Your task to perform on an android device: Open Maps and search for coffee Image 0: 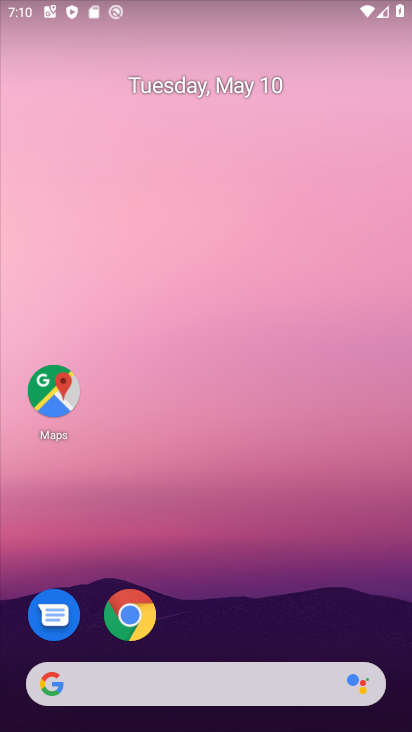
Step 0: click (49, 395)
Your task to perform on an android device: Open Maps and search for coffee Image 1: 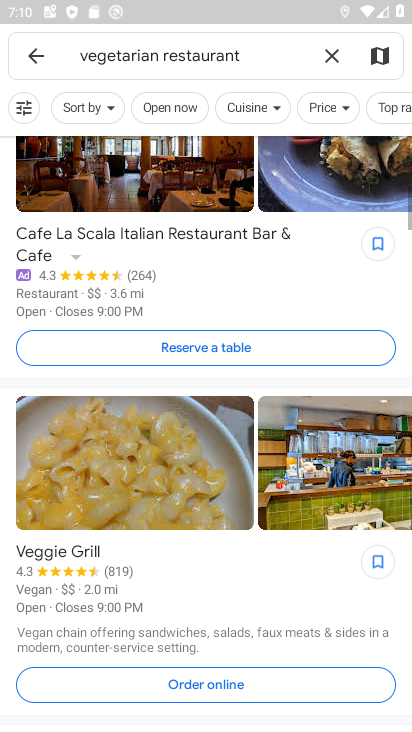
Step 1: click (316, 84)
Your task to perform on an android device: Open Maps and search for coffee Image 2: 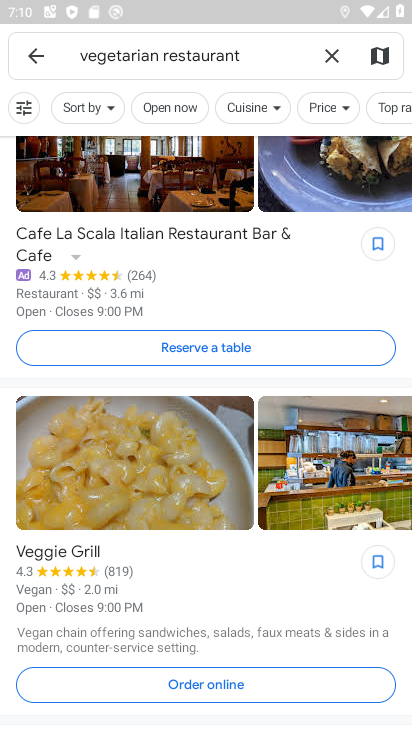
Step 2: click (332, 59)
Your task to perform on an android device: Open Maps and search for coffee Image 3: 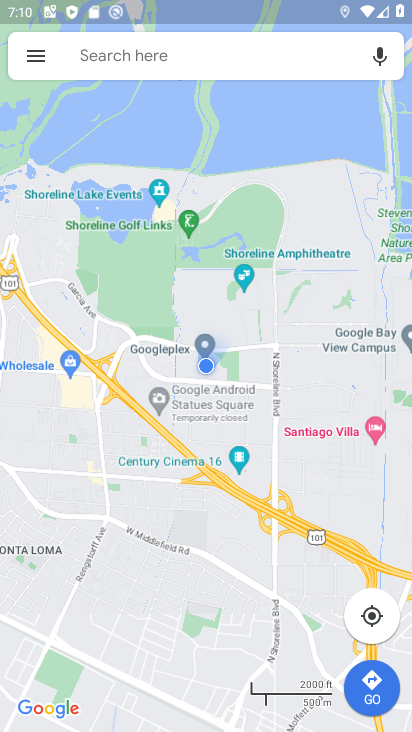
Step 3: click (190, 50)
Your task to perform on an android device: Open Maps and search for coffee Image 4: 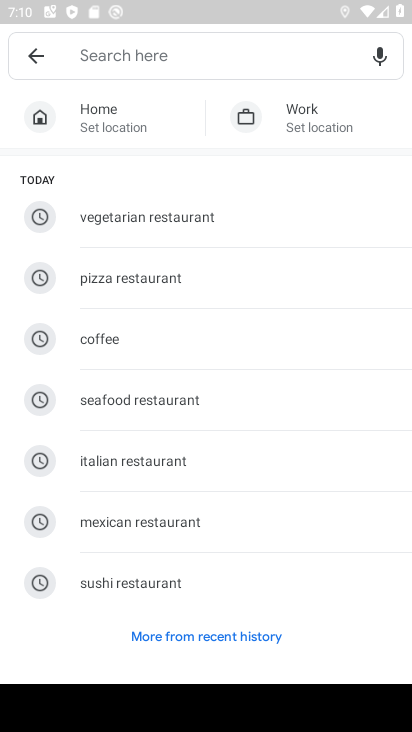
Step 4: click (104, 334)
Your task to perform on an android device: Open Maps and search for coffee Image 5: 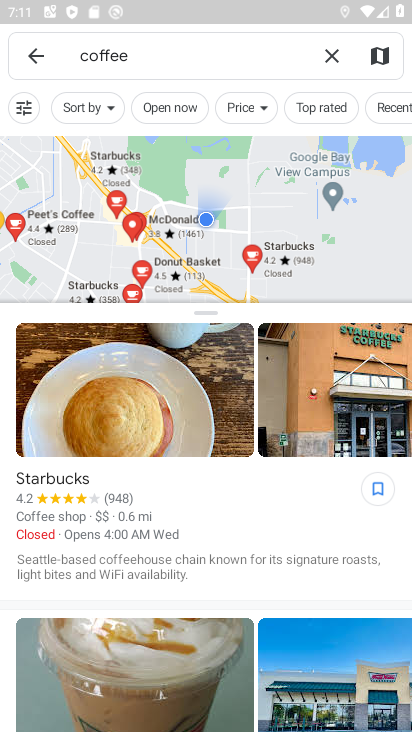
Step 5: task complete